Your task to perform on an android device: Add duracell triple a to the cart on costco, then select checkout. Image 0: 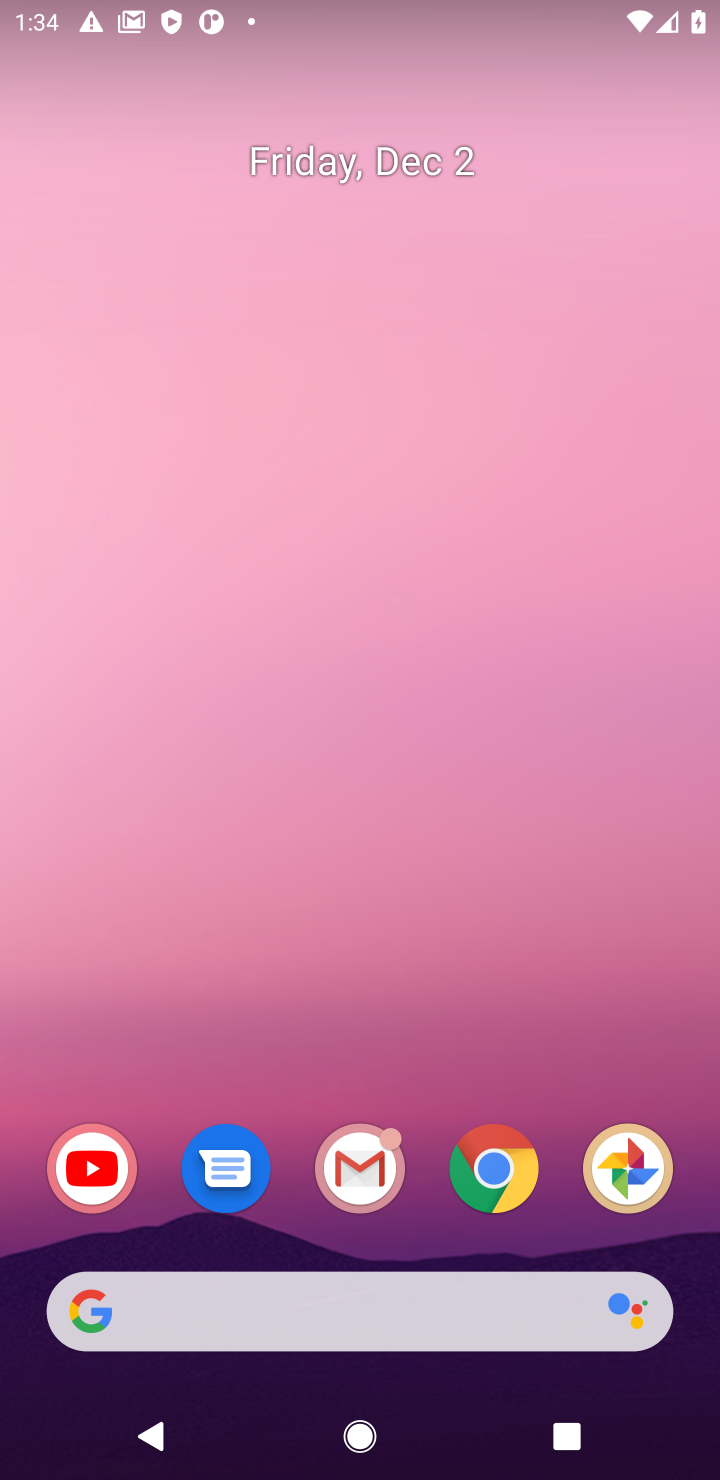
Step 0: click (499, 1182)
Your task to perform on an android device: Add duracell triple a to the cart on costco, then select checkout. Image 1: 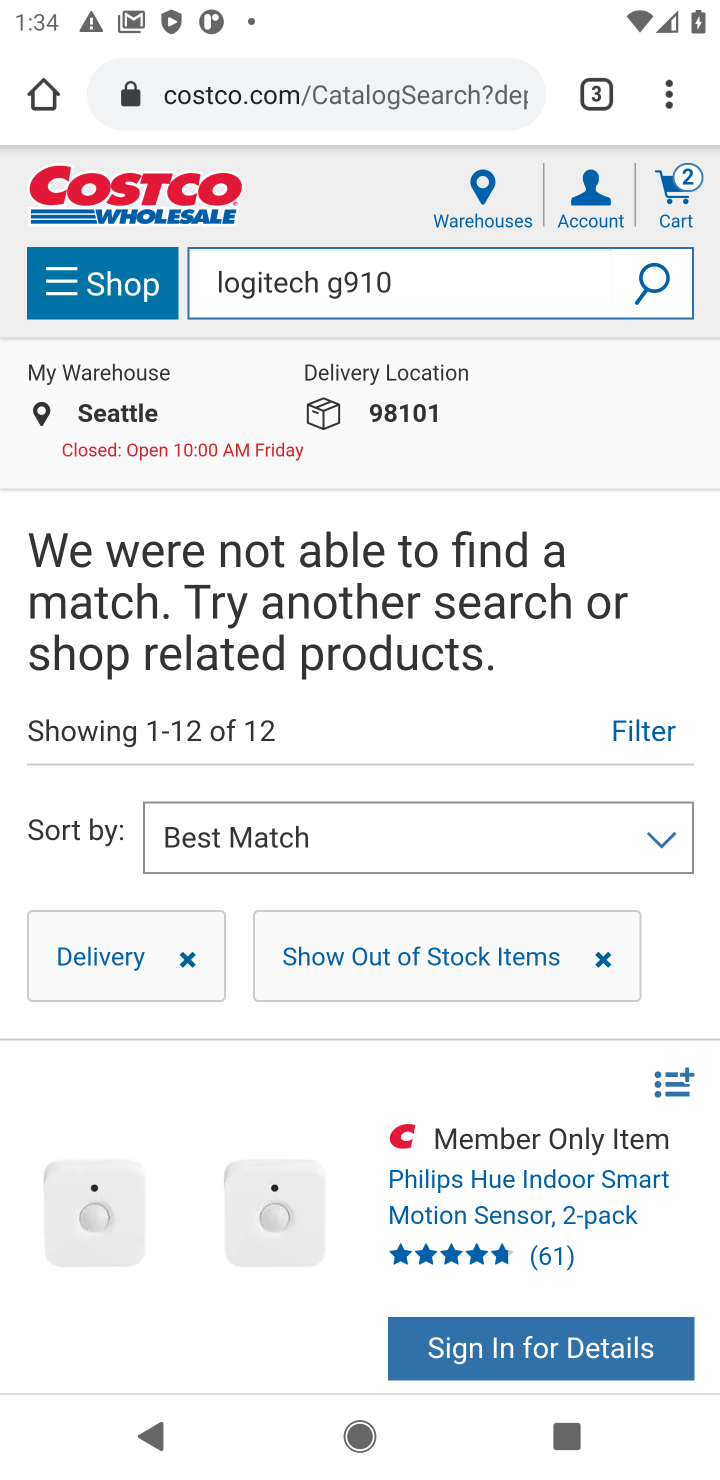
Step 1: click (430, 287)
Your task to perform on an android device: Add duracell triple a to the cart on costco, then select checkout. Image 2: 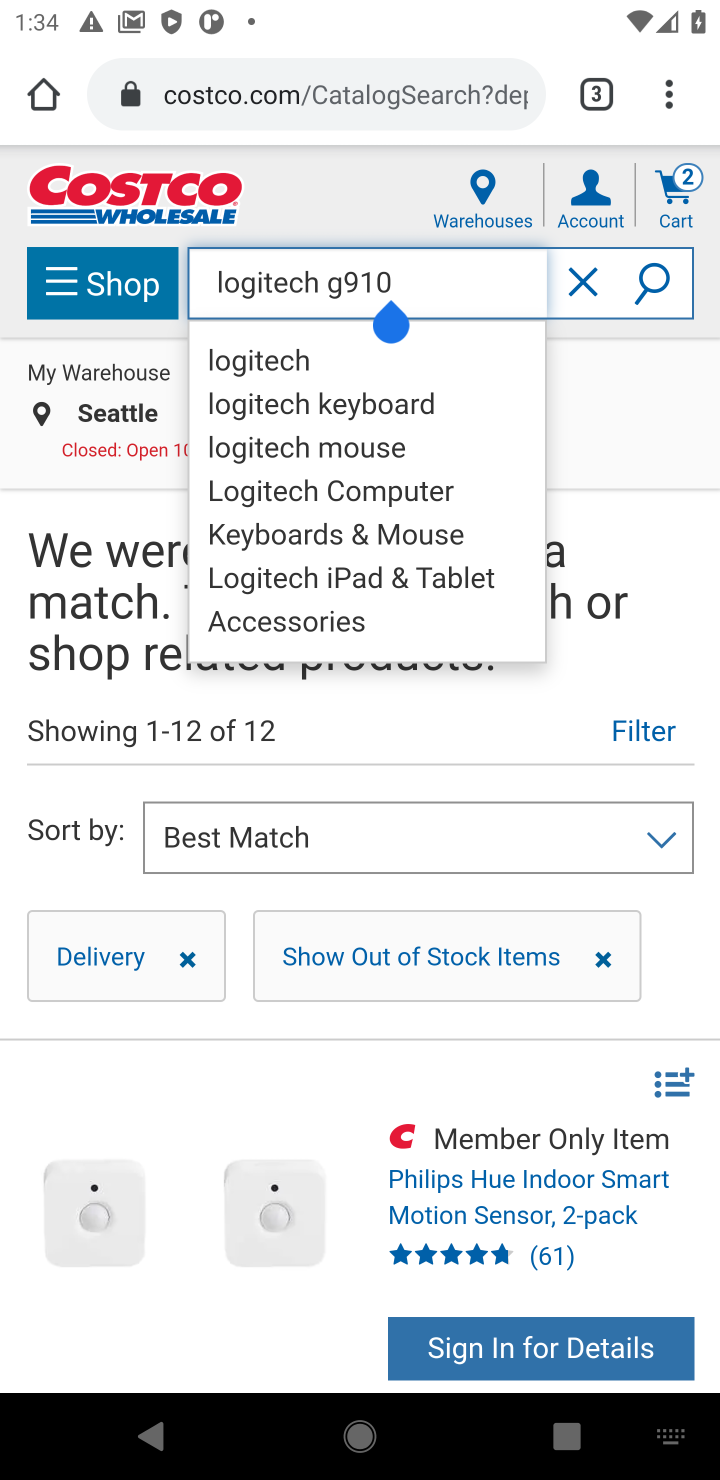
Step 2: click (591, 298)
Your task to perform on an android device: Add duracell triple a to the cart on costco, then select checkout. Image 3: 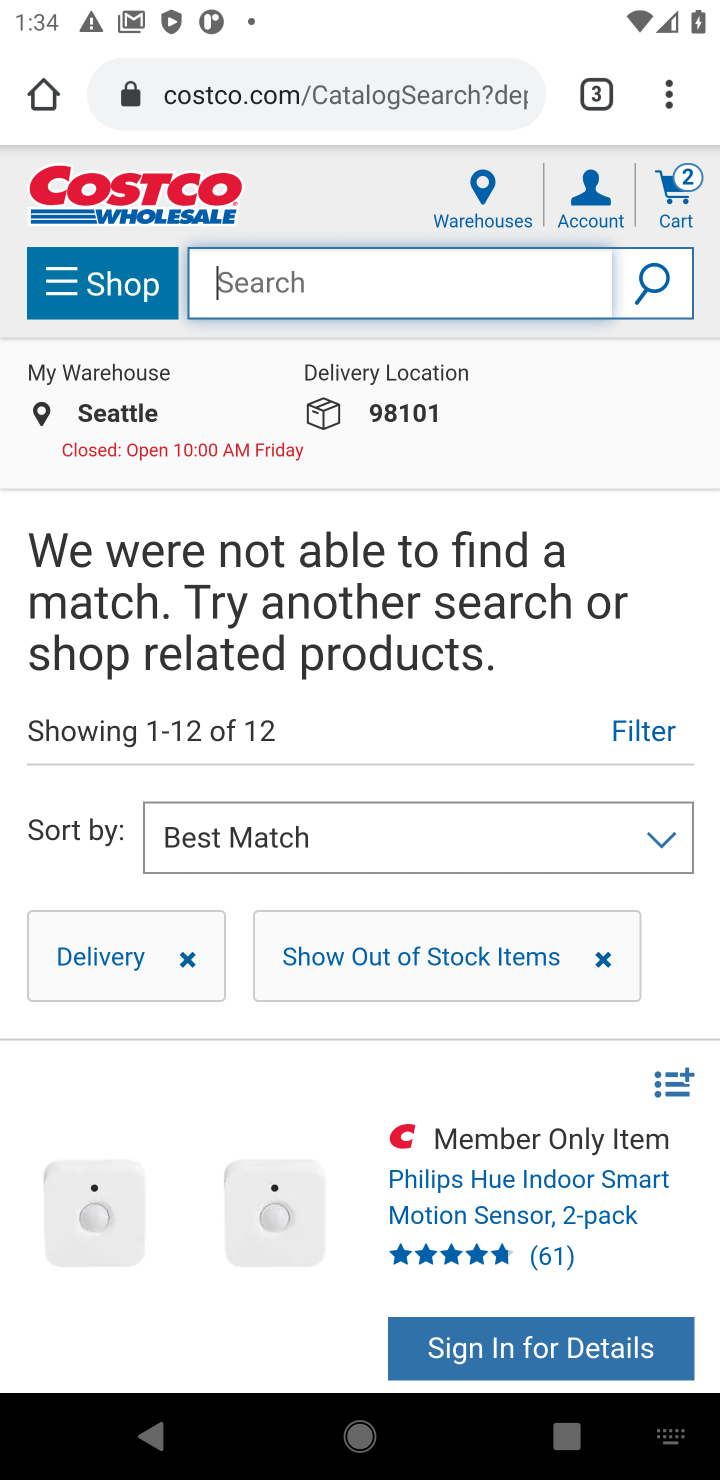
Step 3: type " duracell triple a "
Your task to perform on an android device: Add duracell triple a to the cart on costco, then select checkout. Image 4: 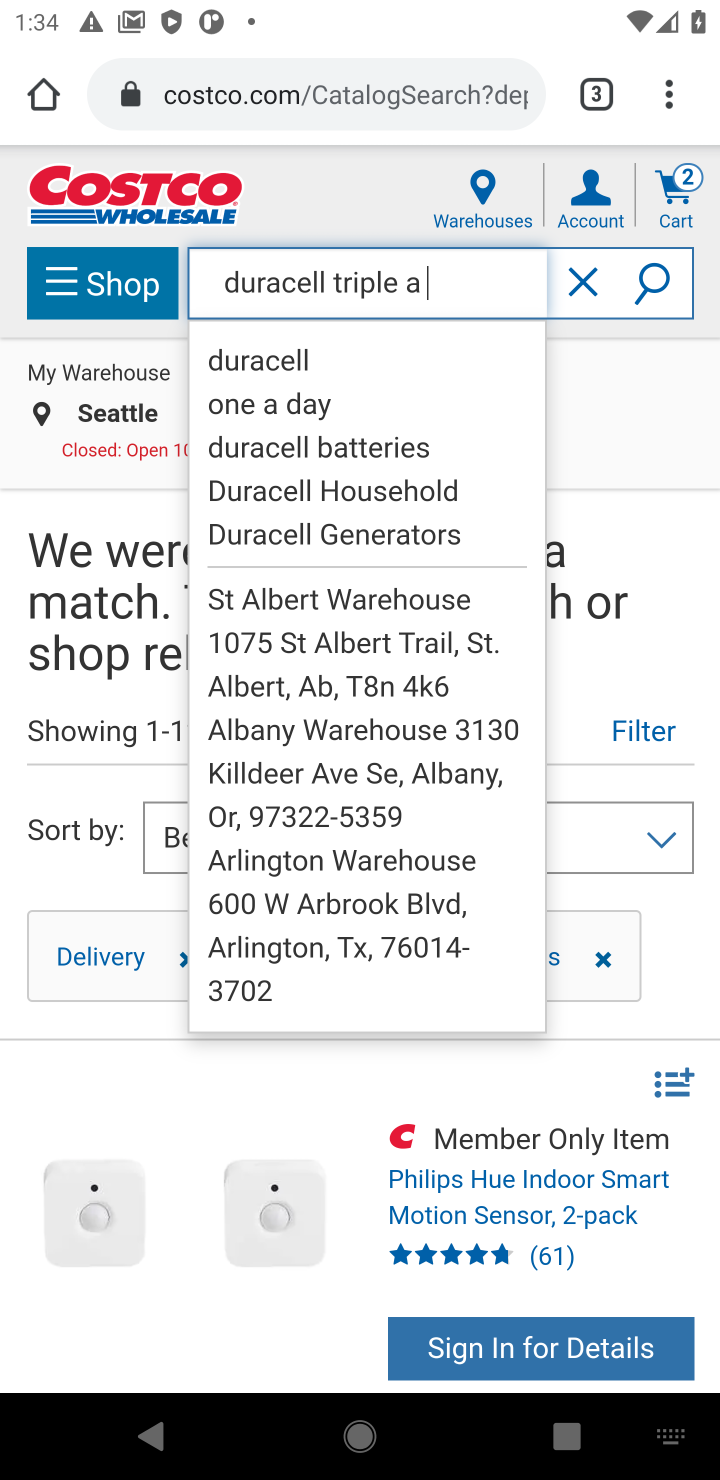
Step 4: click (637, 292)
Your task to perform on an android device: Add duracell triple a to the cart on costco, then select checkout. Image 5: 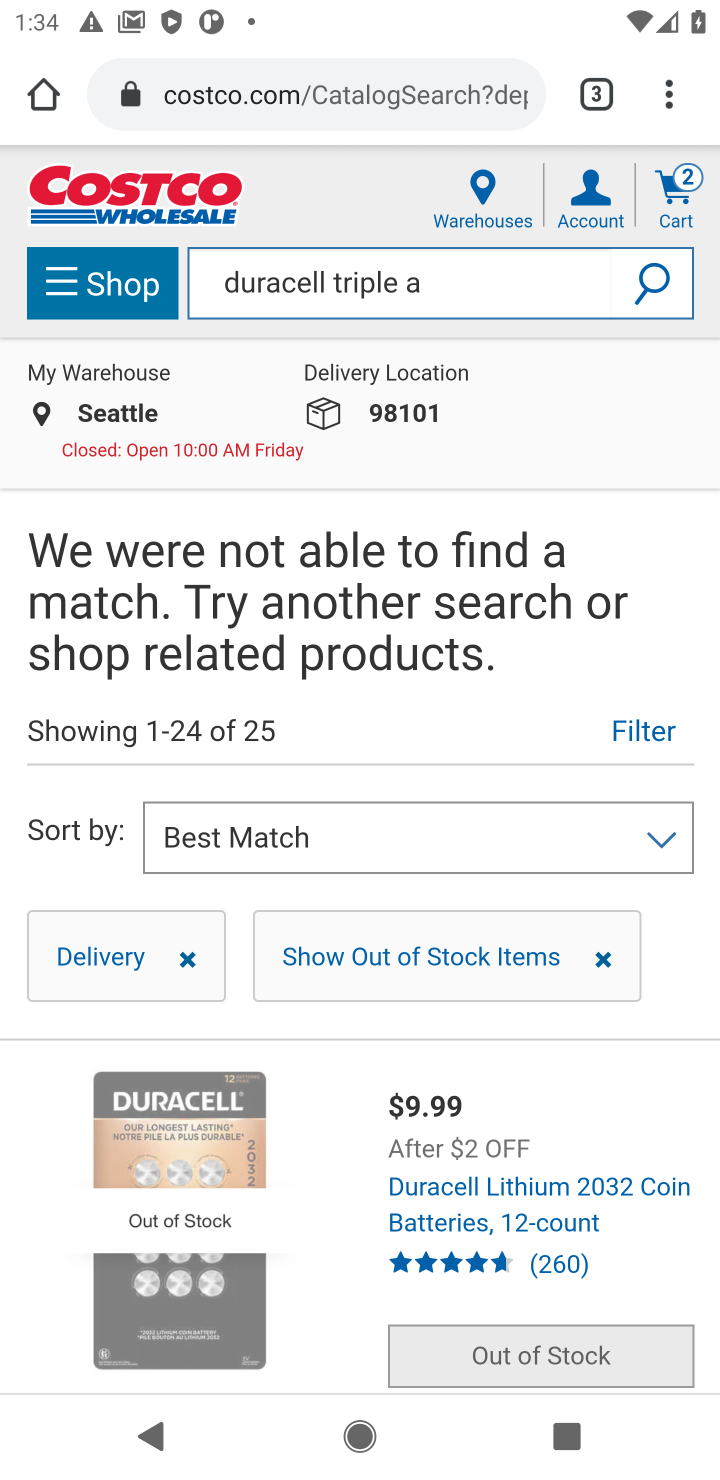
Step 5: task complete